Your task to perform on an android device: turn off notifications in google photos Image 0: 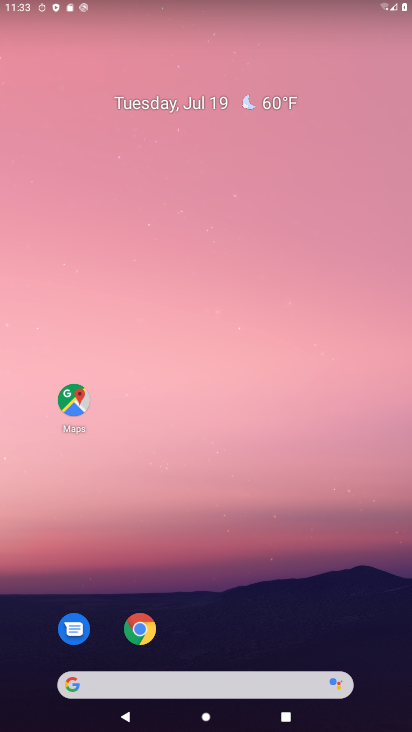
Step 0: drag from (273, 644) to (273, 50)
Your task to perform on an android device: turn off notifications in google photos Image 1: 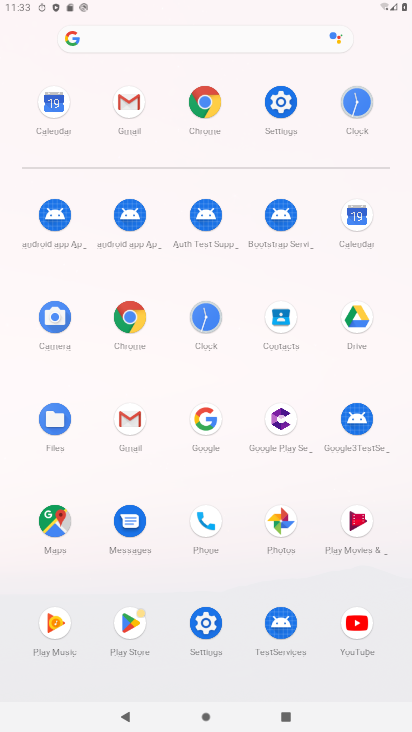
Step 1: click (279, 517)
Your task to perform on an android device: turn off notifications in google photos Image 2: 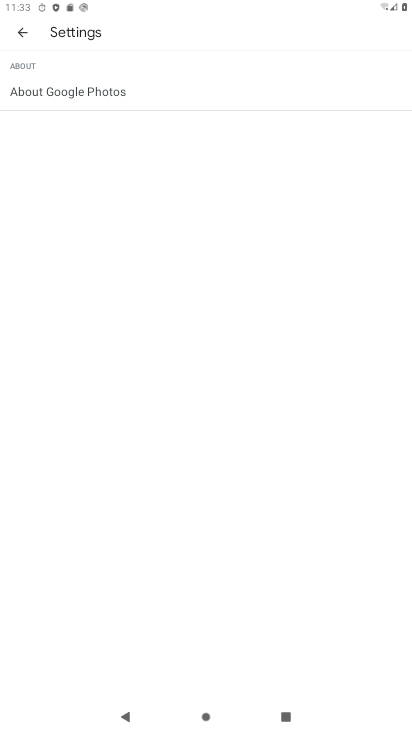
Step 2: click (24, 22)
Your task to perform on an android device: turn off notifications in google photos Image 3: 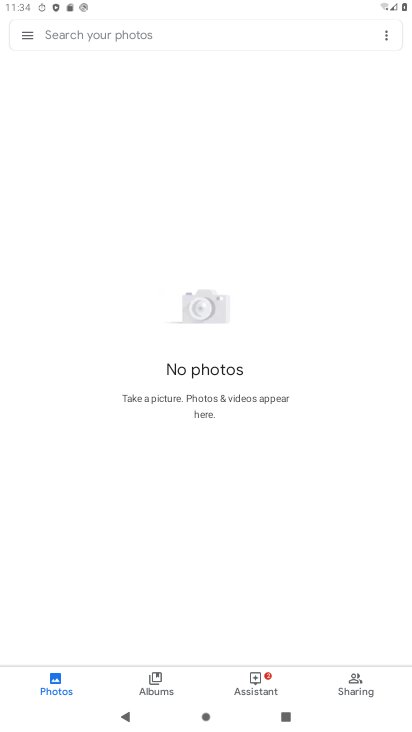
Step 3: click (26, 40)
Your task to perform on an android device: turn off notifications in google photos Image 4: 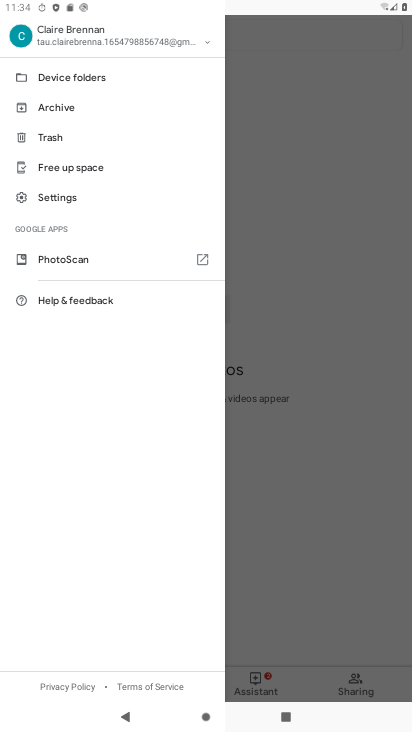
Step 4: click (43, 196)
Your task to perform on an android device: turn off notifications in google photos Image 5: 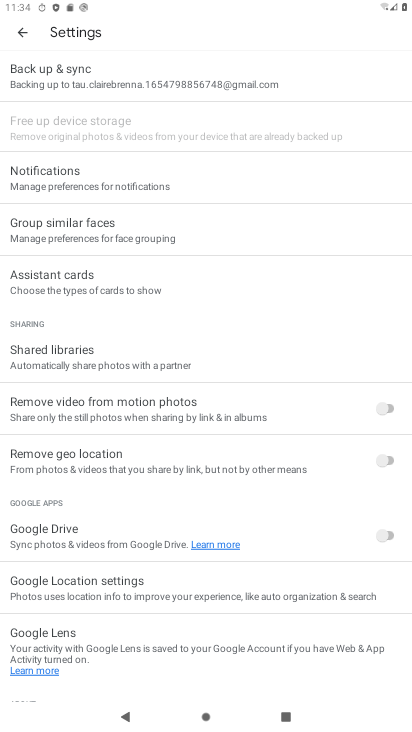
Step 5: click (103, 188)
Your task to perform on an android device: turn off notifications in google photos Image 6: 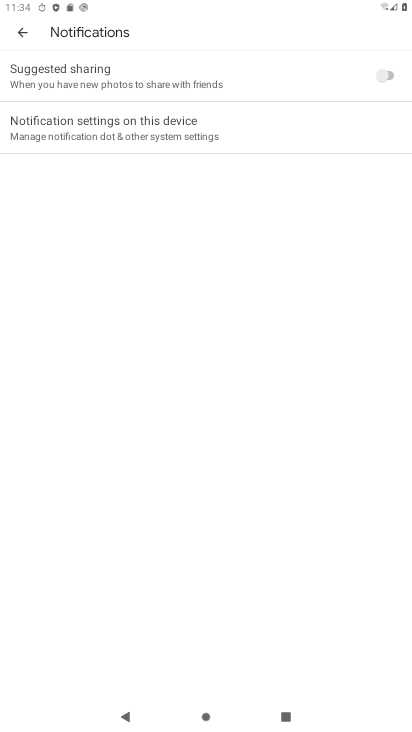
Step 6: click (344, 127)
Your task to perform on an android device: turn off notifications in google photos Image 7: 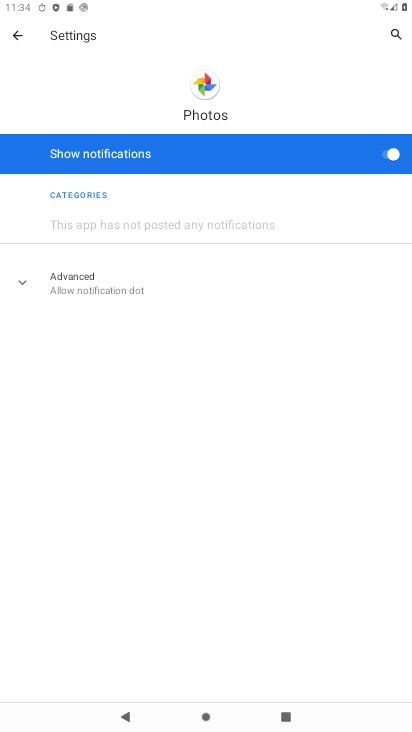
Step 7: click (384, 162)
Your task to perform on an android device: turn off notifications in google photos Image 8: 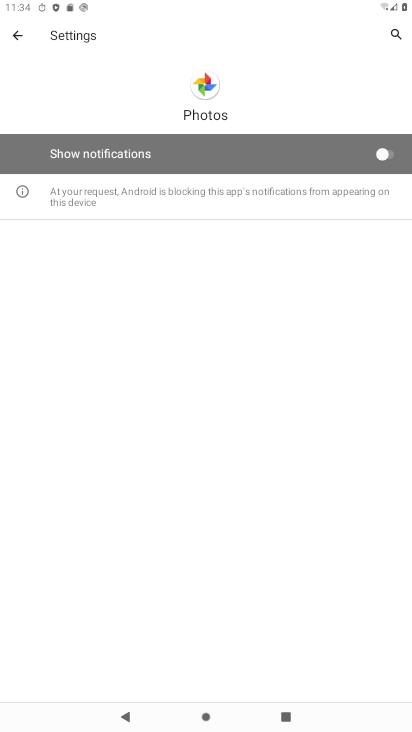
Step 8: task complete